Your task to perform on an android device: What's the weather? Image 0: 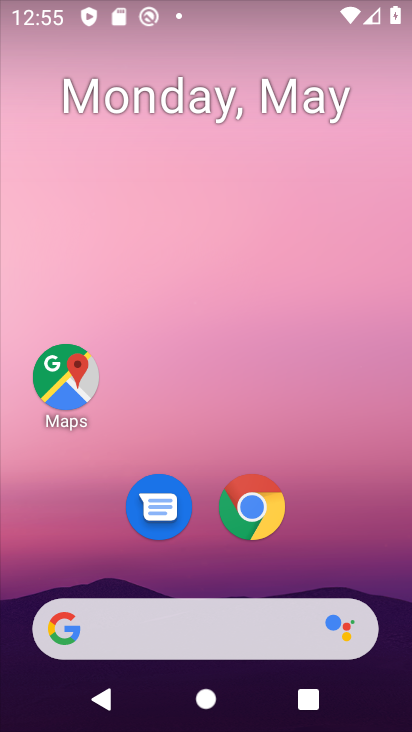
Step 0: click (253, 512)
Your task to perform on an android device: What's the weather? Image 1: 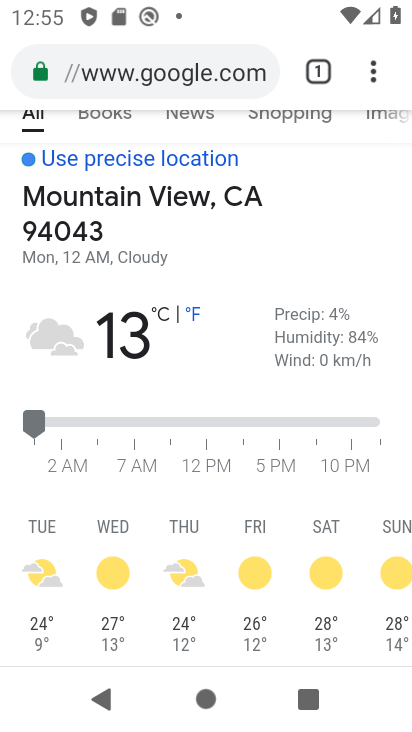
Step 1: click (204, 88)
Your task to perform on an android device: What's the weather? Image 2: 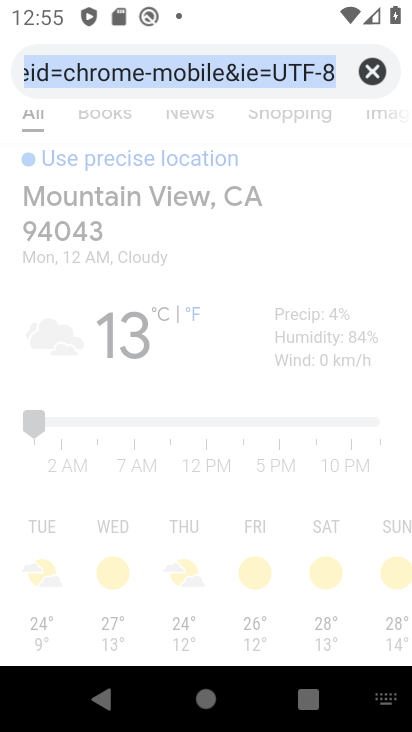
Step 2: type "weather"
Your task to perform on an android device: What's the weather? Image 3: 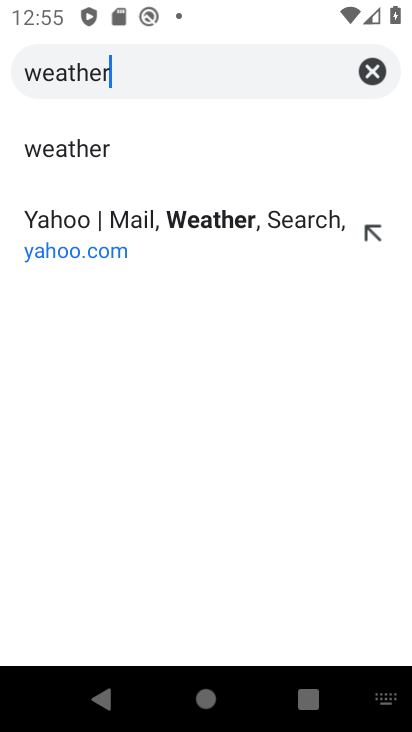
Step 3: press enter
Your task to perform on an android device: What's the weather? Image 4: 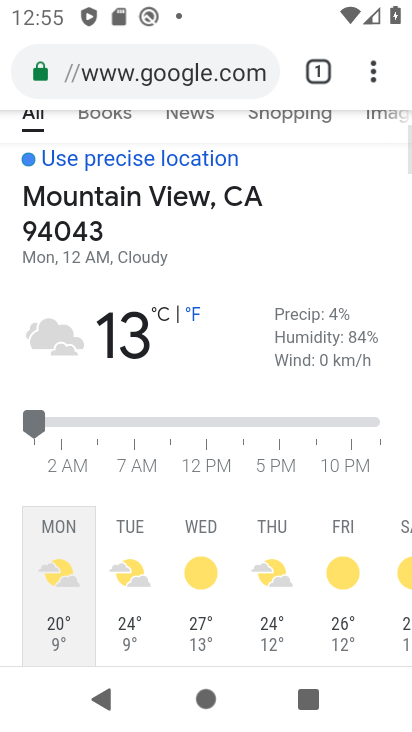
Step 4: task complete